Your task to perform on an android device: Go to Yahoo.com Image 0: 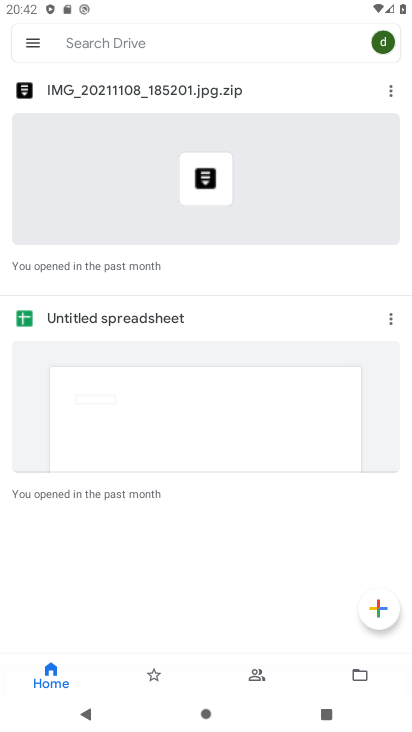
Step 0: press home button
Your task to perform on an android device: Go to Yahoo.com Image 1: 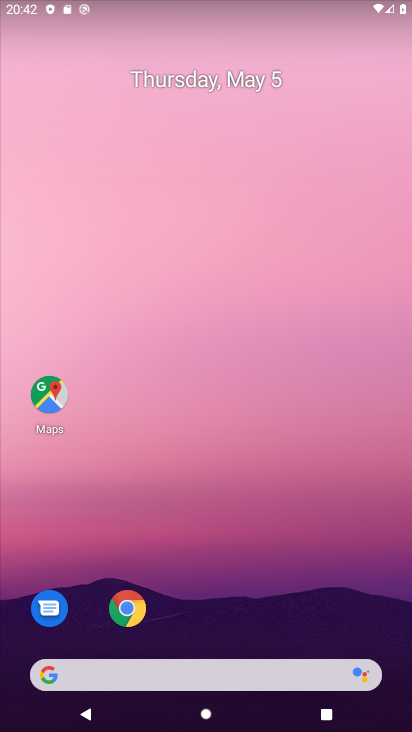
Step 1: drag from (222, 658) to (242, 2)
Your task to perform on an android device: Go to Yahoo.com Image 2: 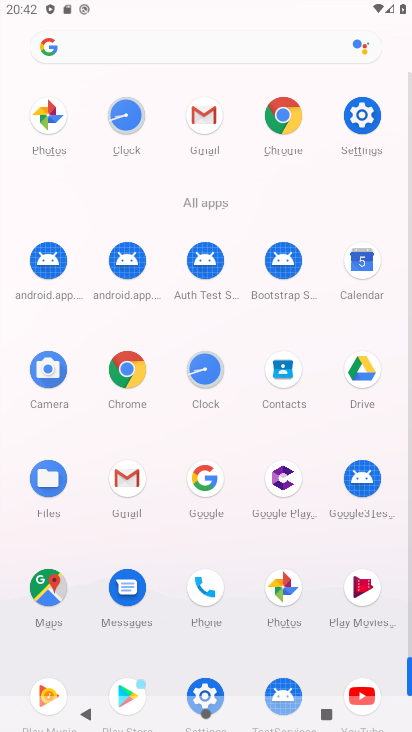
Step 2: click (124, 372)
Your task to perform on an android device: Go to Yahoo.com Image 3: 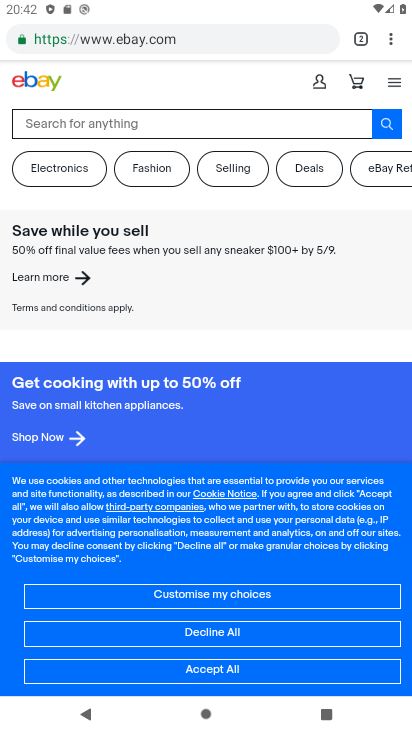
Step 3: click (275, 43)
Your task to perform on an android device: Go to Yahoo.com Image 4: 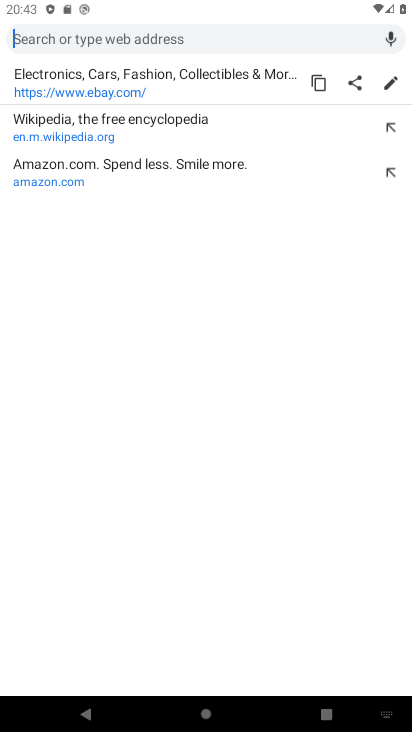
Step 4: type "yahoo.com"
Your task to perform on an android device: Go to Yahoo.com Image 5: 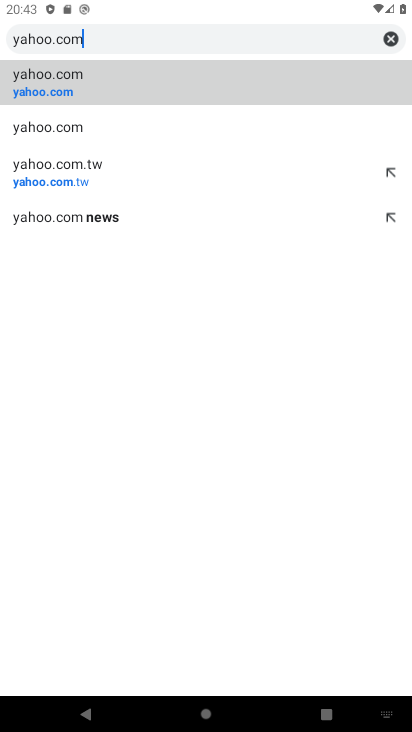
Step 5: click (221, 85)
Your task to perform on an android device: Go to Yahoo.com Image 6: 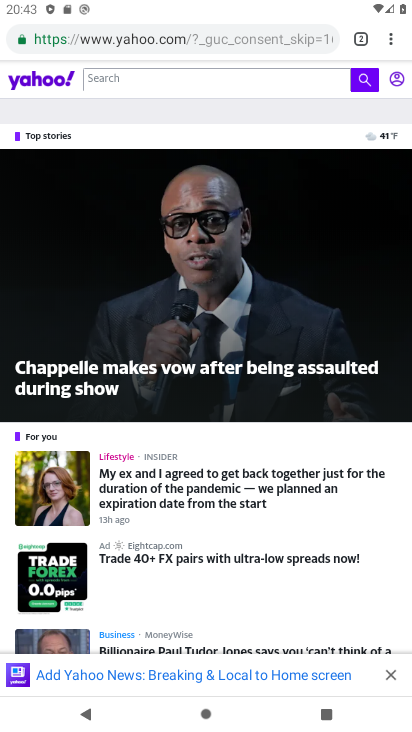
Step 6: task complete